Your task to perform on an android device: Go to Android settings Image 0: 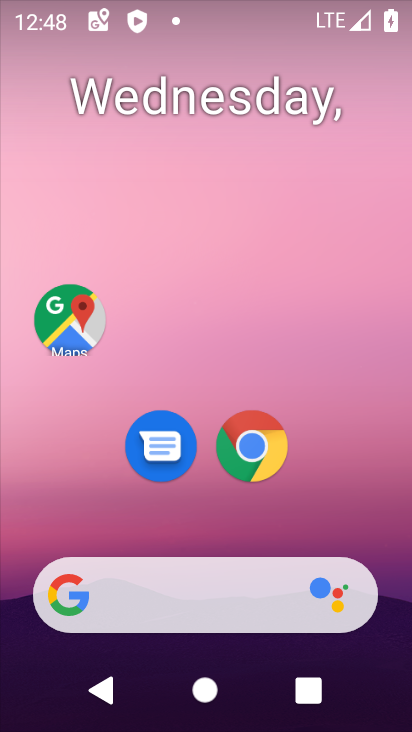
Step 0: drag from (267, 704) to (172, 236)
Your task to perform on an android device: Go to Android settings Image 1: 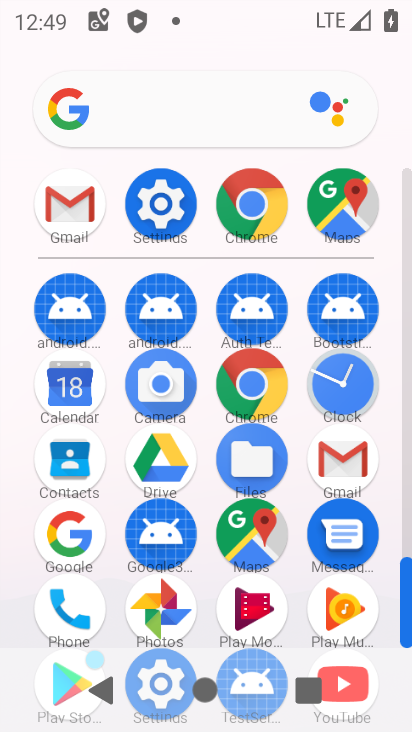
Step 1: click (157, 193)
Your task to perform on an android device: Go to Android settings Image 2: 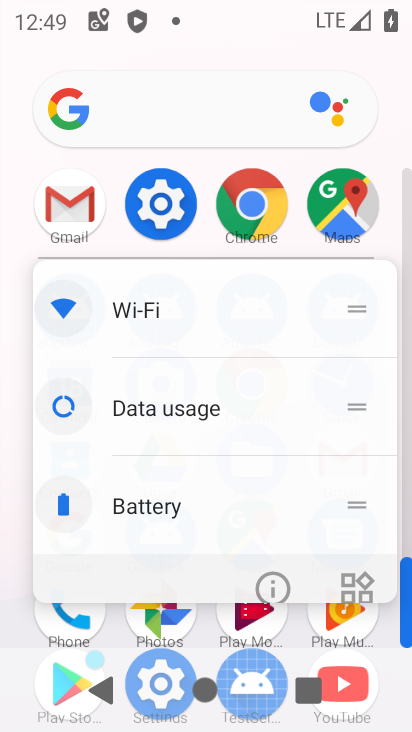
Step 2: click (166, 209)
Your task to perform on an android device: Go to Android settings Image 3: 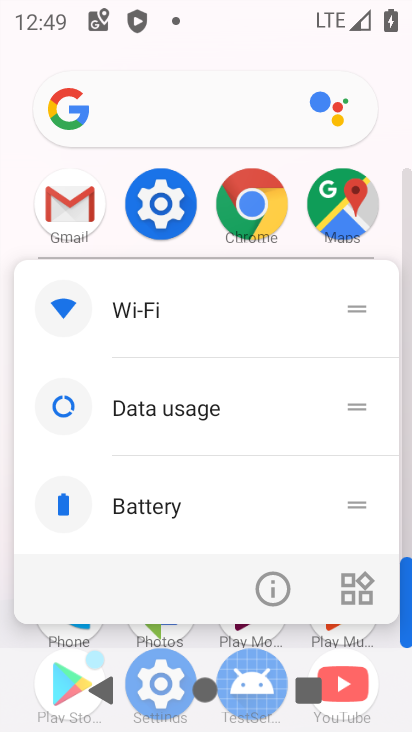
Step 3: press back button
Your task to perform on an android device: Go to Android settings Image 4: 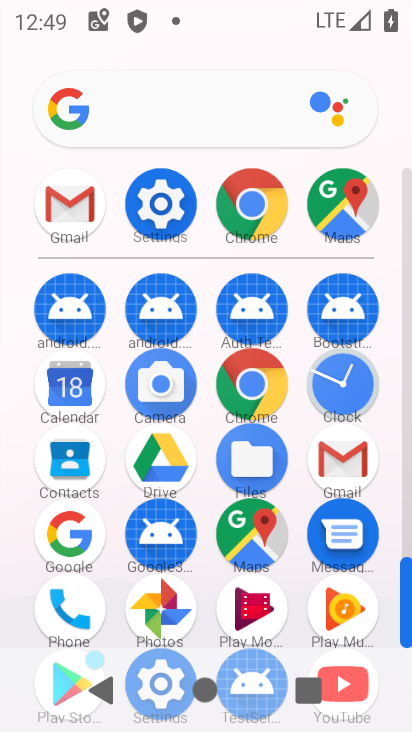
Step 4: press home button
Your task to perform on an android device: Go to Android settings Image 5: 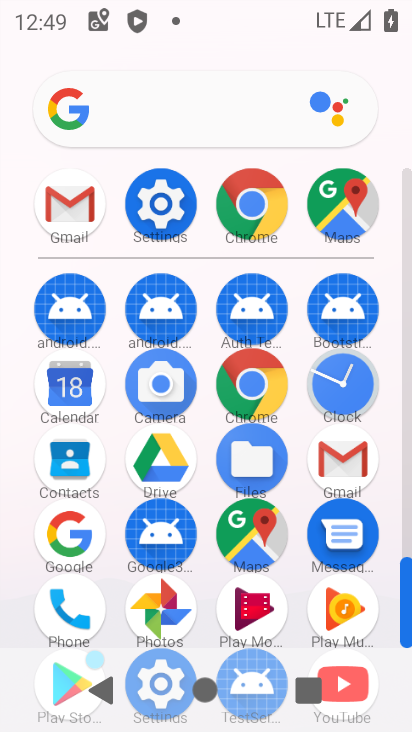
Step 5: press home button
Your task to perform on an android device: Go to Android settings Image 6: 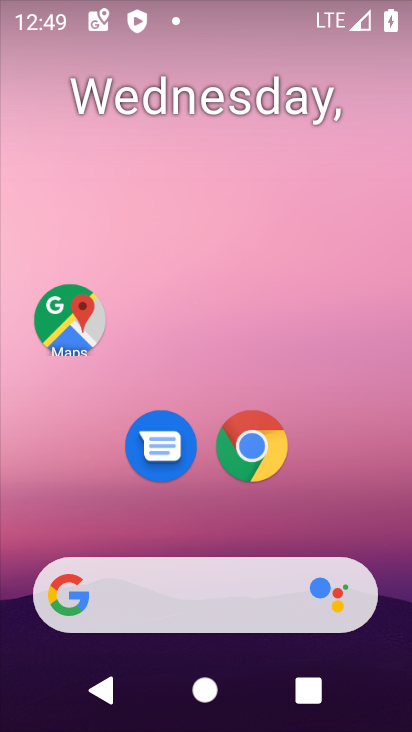
Step 6: drag from (360, 604) to (258, 123)
Your task to perform on an android device: Go to Android settings Image 7: 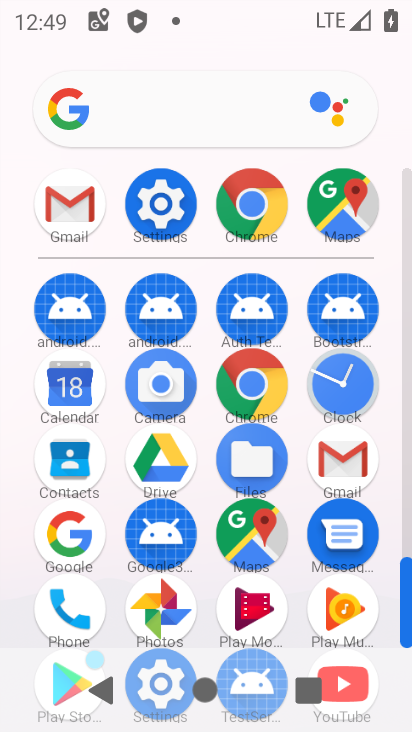
Step 7: click (156, 217)
Your task to perform on an android device: Go to Android settings Image 8: 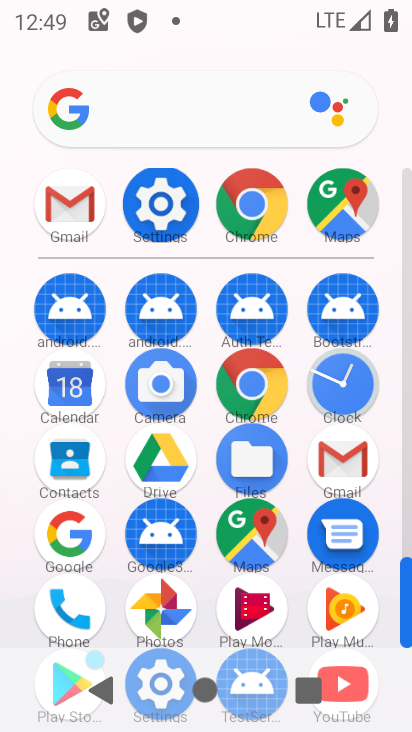
Step 8: click (155, 216)
Your task to perform on an android device: Go to Android settings Image 9: 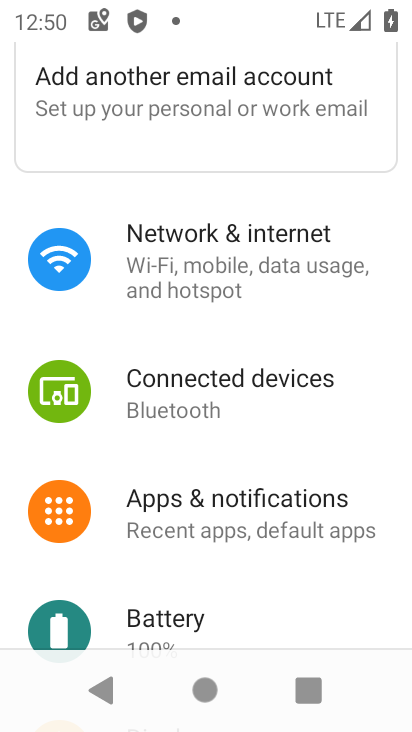
Step 9: drag from (220, 552) to (221, 224)
Your task to perform on an android device: Go to Android settings Image 10: 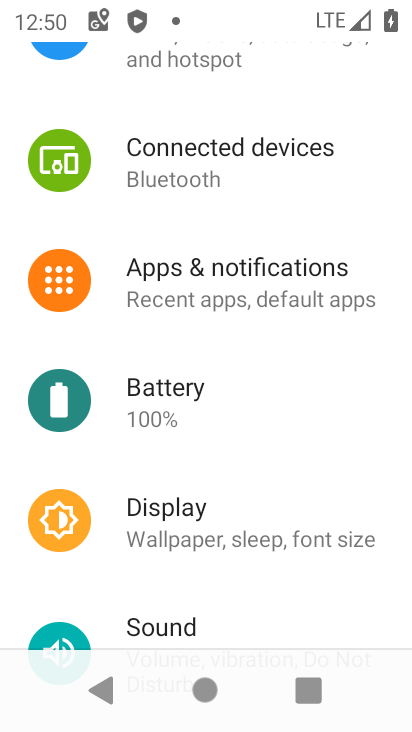
Step 10: drag from (251, 405) to (235, 149)
Your task to perform on an android device: Go to Android settings Image 11: 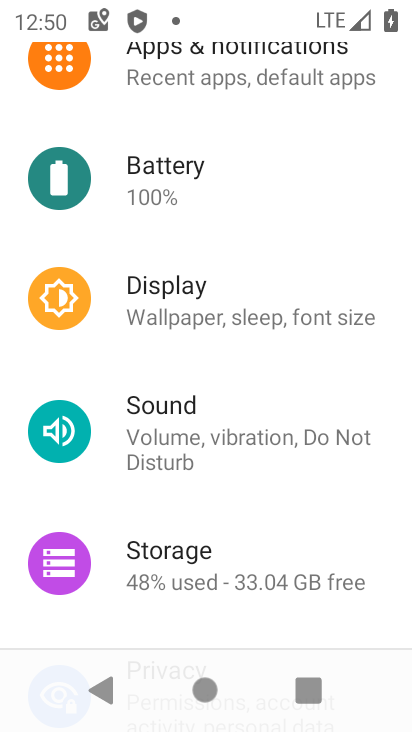
Step 11: drag from (237, 554) to (205, 203)
Your task to perform on an android device: Go to Android settings Image 12: 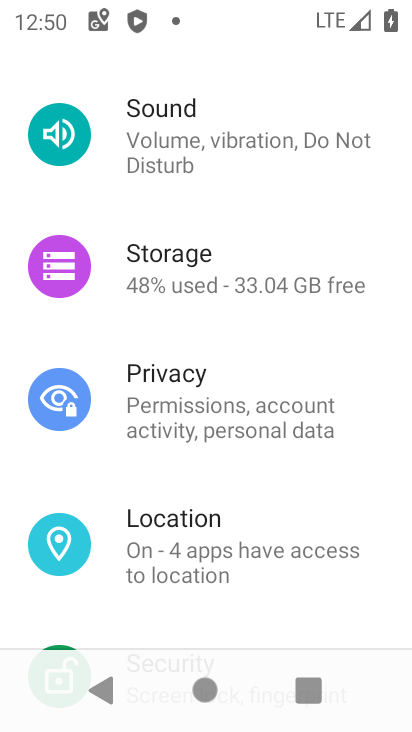
Step 12: drag from (254, 445) to (222, 198)
Your task to perform on an android device: Go to Android settings Image 13: 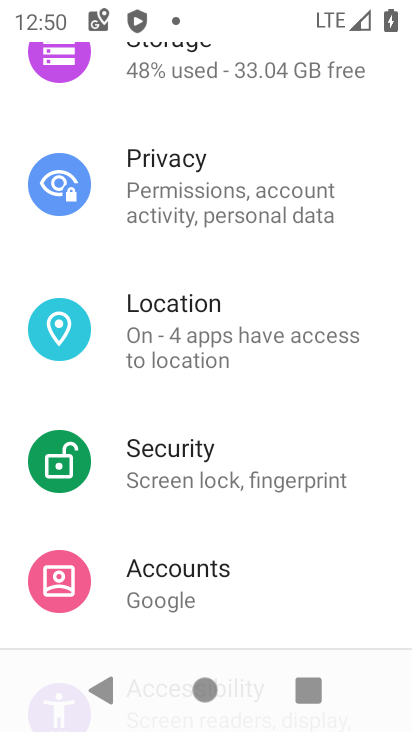
Step 13: drag from (252, 483) to (251, 101)
Your task to perform on an android device: Go to Android settings Image 14: 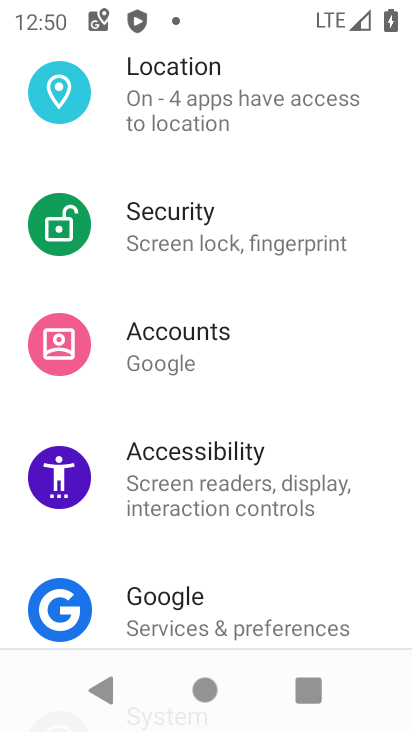
Step 14: drag from (267, 374) to (256, 60)
Your task to perform on an android device: Go to Android settings Image 15: 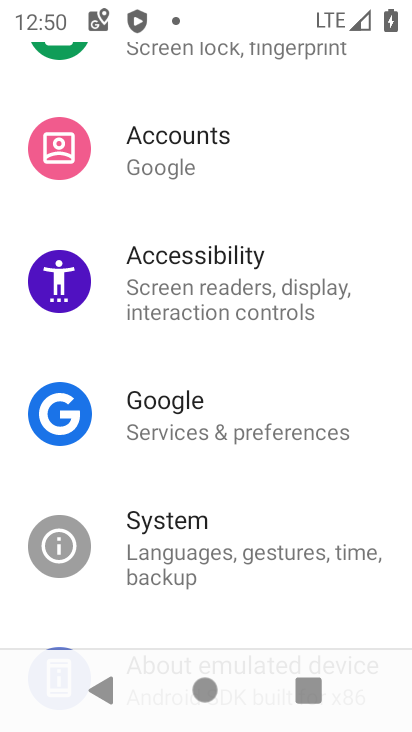
Step 15: drag from (273, 475) to (238, 128)
Your task to perform on an android device: Go to Android settings Image 16: 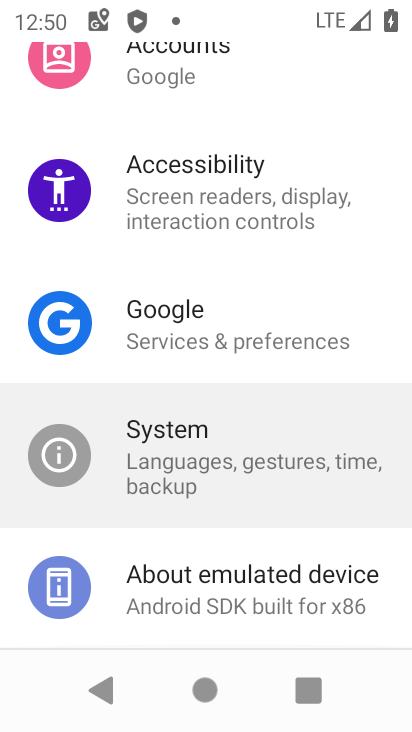
Step 16: drag from (233, 457) to (139, 69)
Your task to perform on an android device: Go to Android settings Image 17: 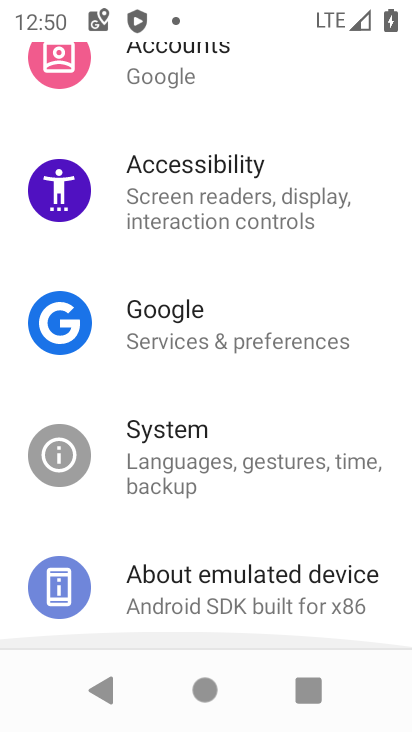
Step 17: drag from (240, 397) to (240, 26)
Your task to perform on an android device: Go to Android settings Image 18: 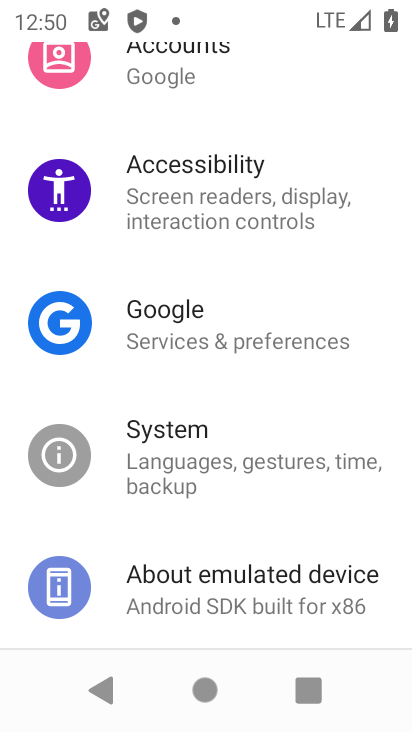
Step 18: click (180, 590)
Your task to perform on an android device: Go to Android settings Image 19: 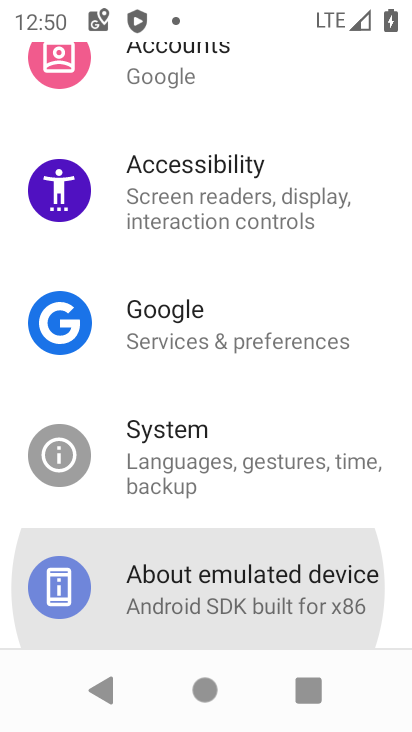
Step 19: click (180, 590)
Your task to perform on an android device: Go to Android settings Image 20: 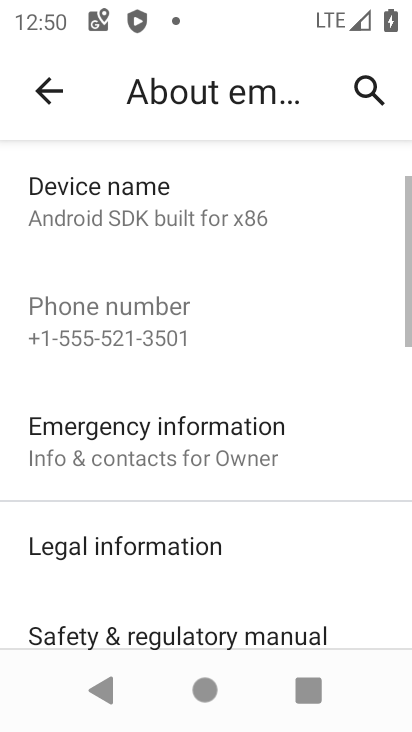
Step 20: task complete